Your task to perform on an android device: Open Reddit.com Image 0: 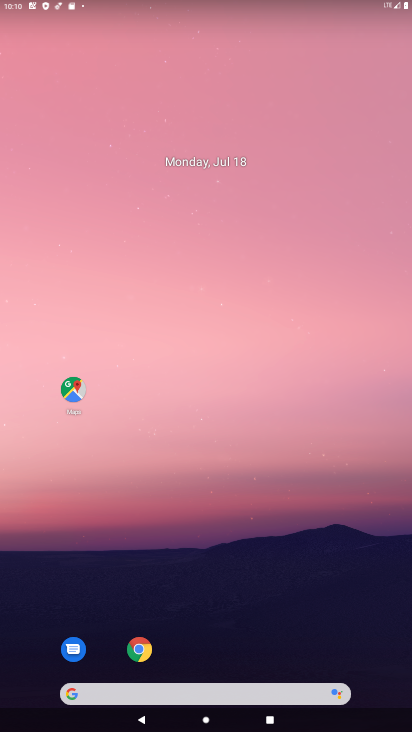
Step 0: click (127, 696)
Your task to perform on an android device: Open Reddit.com Image 1: 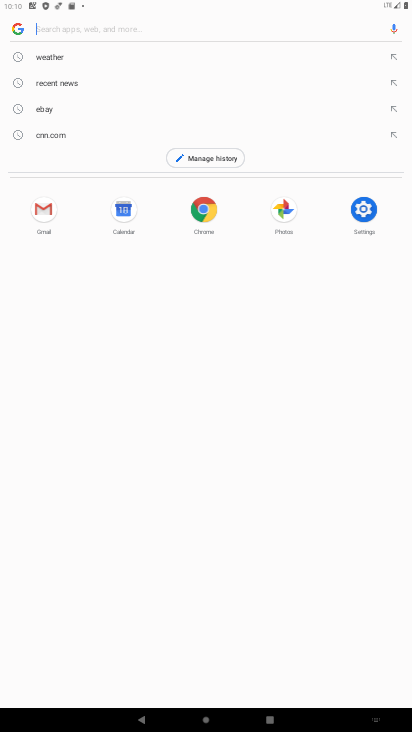
Step 1: type "reddit.com"
Your task to perform on an android device: Open Reddit.com Image 2: 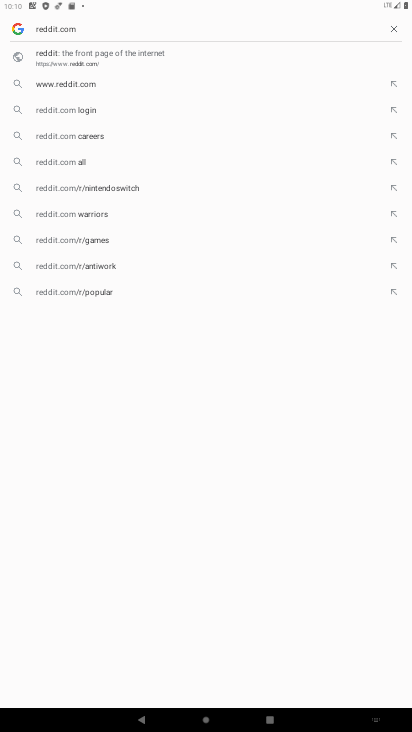
Step 2: click (137, 58)
Your task to perform on an android device: Open Reddit.com Image 3: 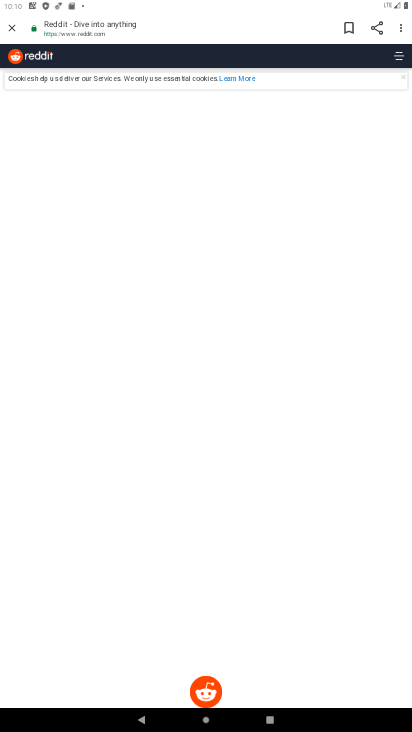
Step 3: task complete